Your task to perform on an android device: toggle translation in the chrome app Image 0: 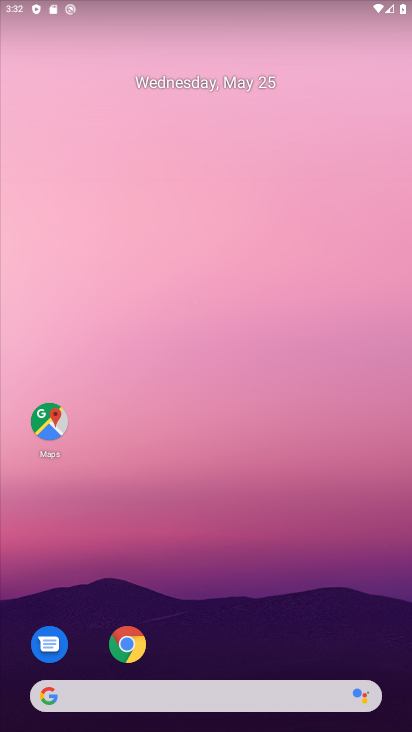
Step 0: click (128, 651)
Your task to perform on an android device: toggle translation in the chrome app Image 1: 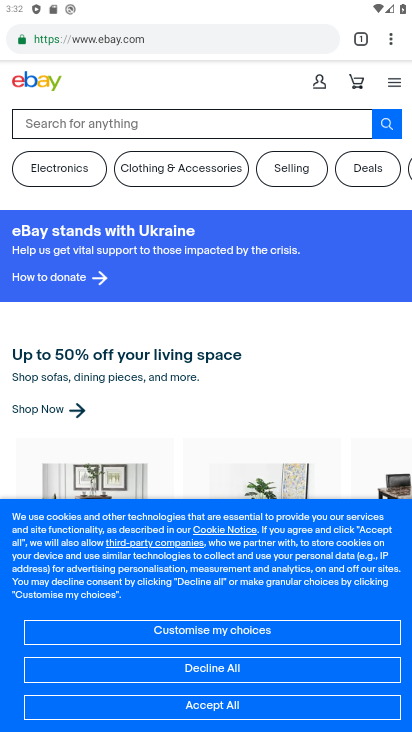
Step 1: click (392, 43)
Your task to perform on an android device: toggle translation in the chrome app Image 2: 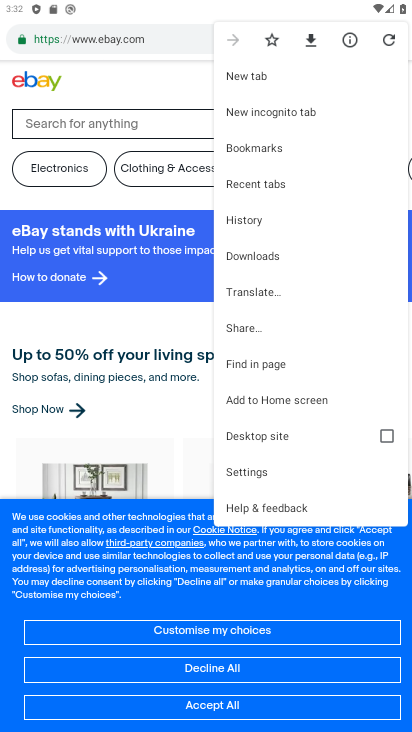
Step 2: click (264, 475)
Your task to perform on an android device: toggle translation in the chrome app Image 3: 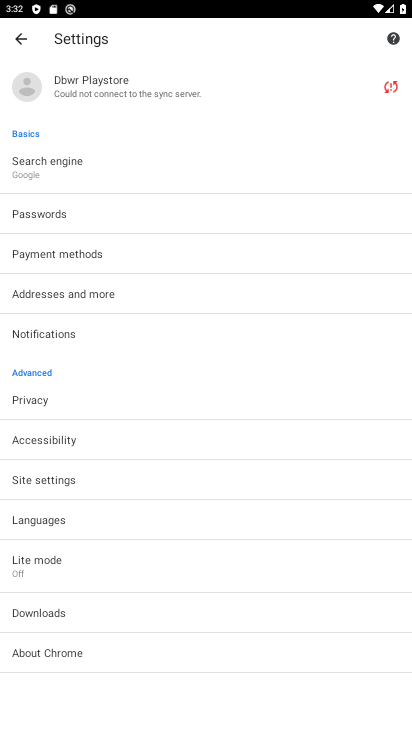
Step 3: click (25, 524)
Your task to perform on an android device: toggle translation in the chrome app Image 4: 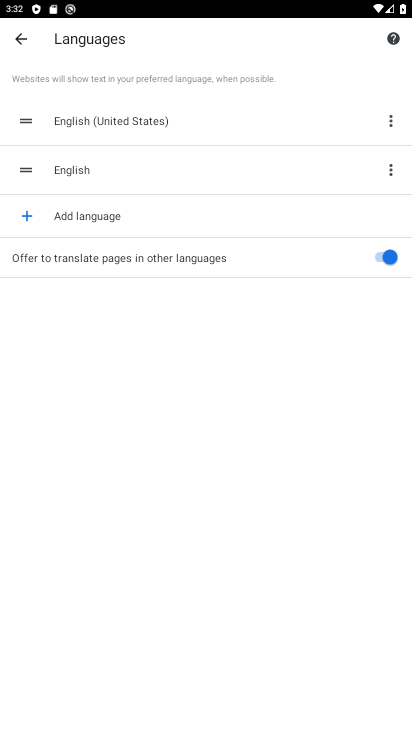
Step 4: click (385, 256)
Your task to perform on an android device: toggle translation in the chrome app Image 5: 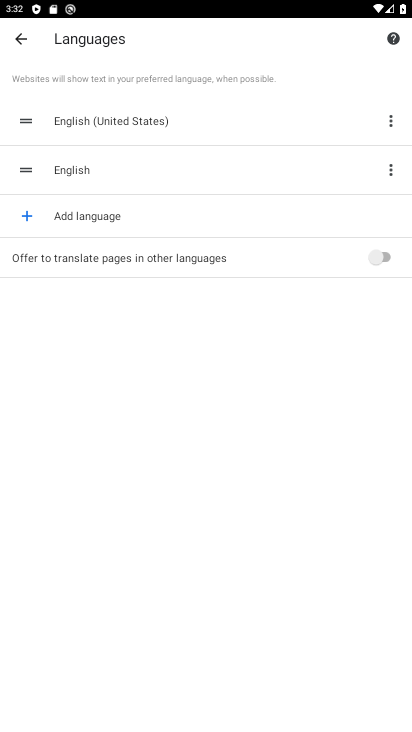
Step 5: task complete